Your task to perform on an android device: change the clock display to show seconds Image 0: 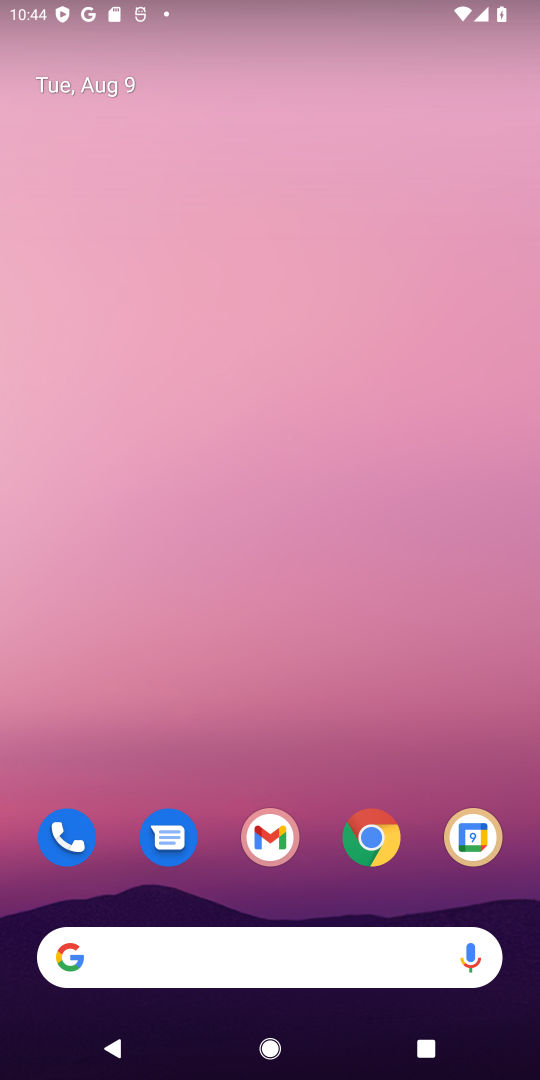
Step 0: drag from (332, 918) to (305, 172)
Your task to perform on an android device: change the clock display to show seconds Image 1: 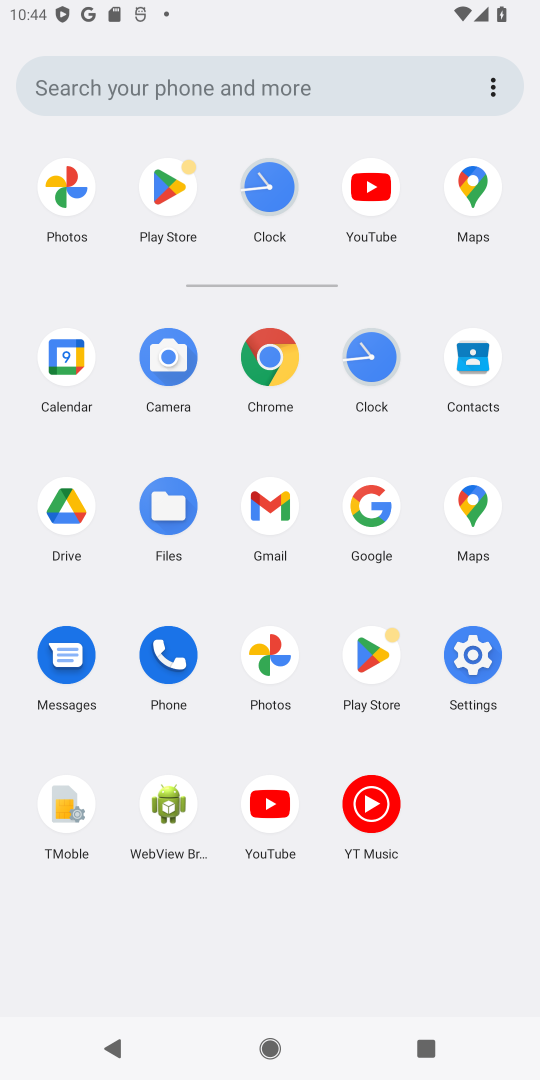
Step 1: click (373, 357)
Your task to perform on an android device: change the clock display to show seconds Image 2: 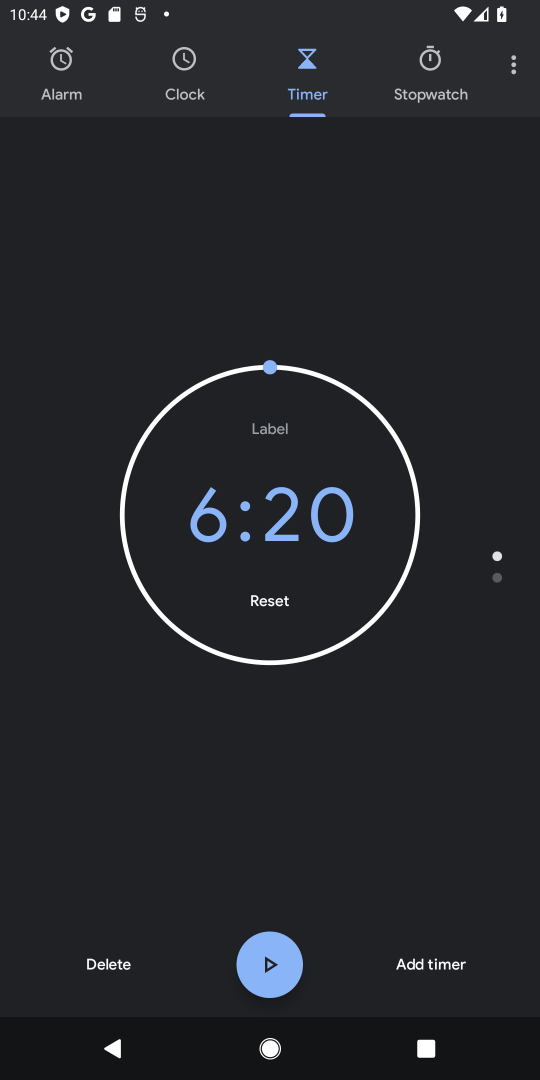
Step 2: click (513, 69)
Your task to perform on an android device: change the clock display to show seconds Image 3: 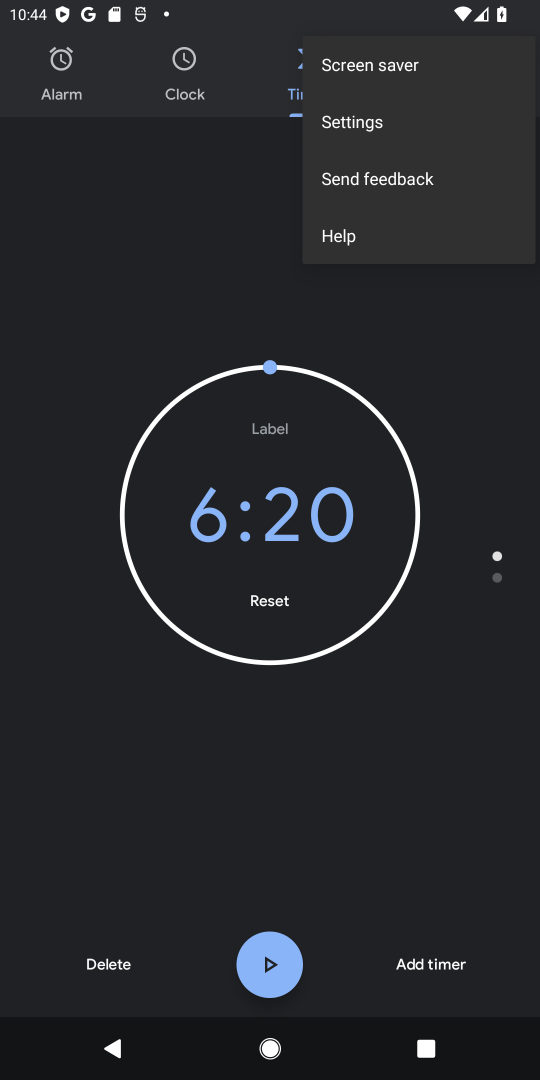
Step 3: click (347, 118)
Your task to perform on an android device: change the clock display to show seconds Image 4: 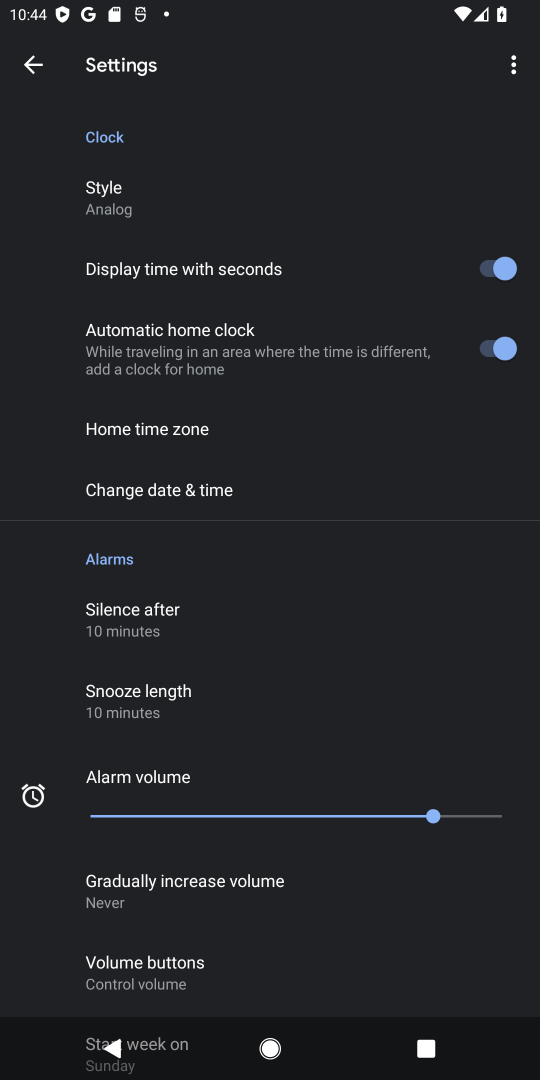
Step 4: task complete